Your task to perform on an android device: turn pop-ups on in chrome Image 0: 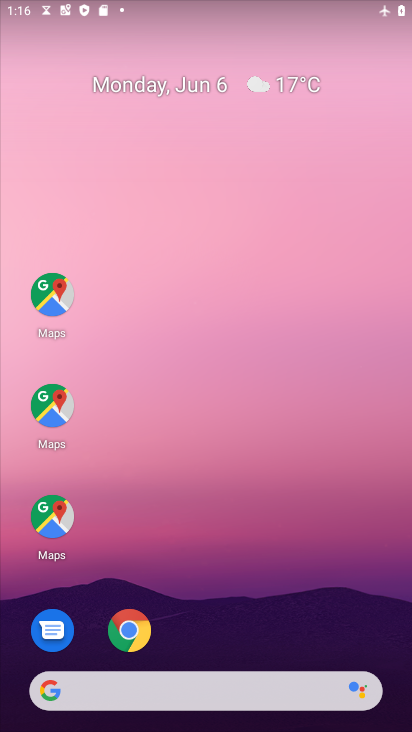
Step 0: drag from (263, 679) to (227, 103)
Your task to perform on an android device: turn pop-ups on in chrome Image 1: 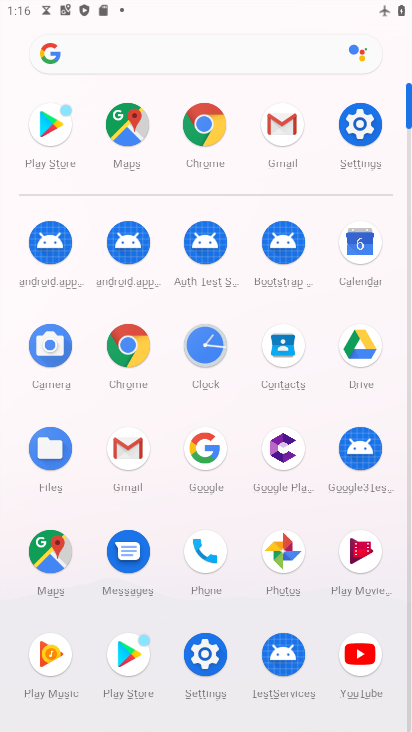
Step 1: click (195, 135)
Your task to perform on an android device: turn pop-ups on in chrome Image 2: 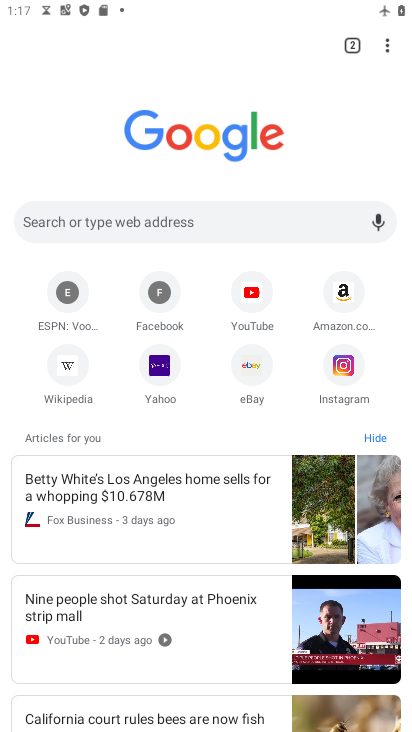
Step 2: drag from (391, 47) to (279, 351)
Your task to perform on an android device: turn pop-ups on in chrome Image 3: 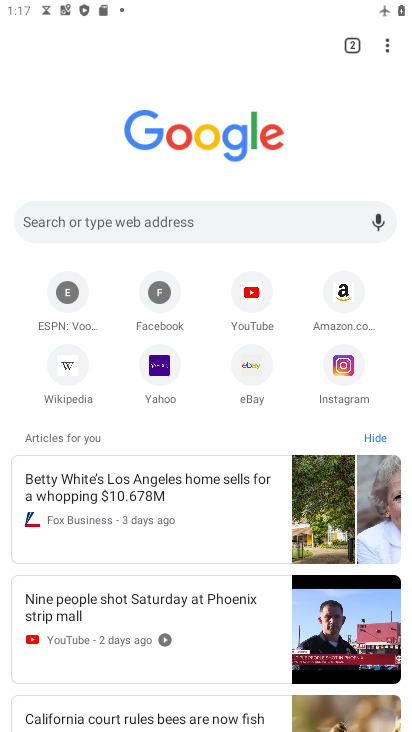
Step 3: drag from (392, 57) to (219, 379)
Your task to perform on an android device: turn pop-ups on in chrome Image 4: 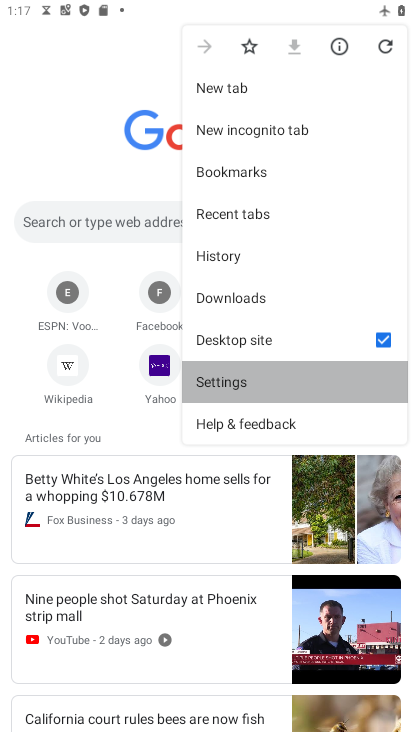
Step 4: click (223, 377)
Your task to perform on an android device: turn pop-ups on in chrome Image 5: 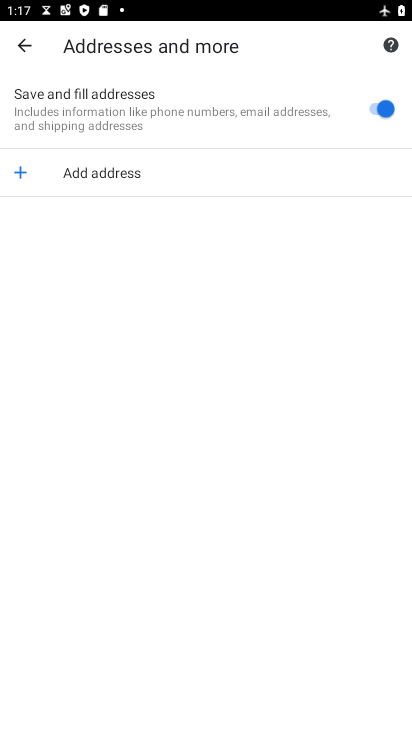
Step 5: click (14, 44)
Your task to perform on an android device: turn pop-ups on in chrome Image 6: 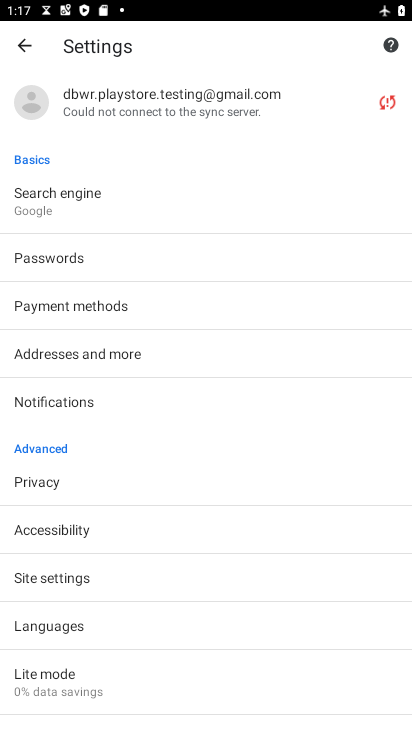
Step 6: click (35, 573)
Your task to perform on an android device: turn pop-ups on in chrome Image 7: 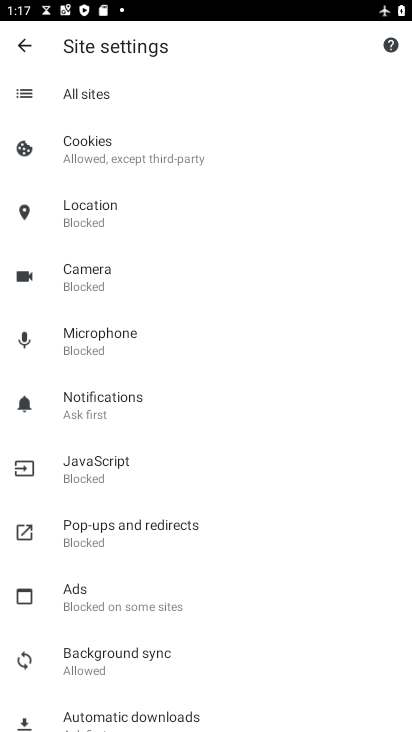
Step 7: click (74, 539)
Your task to perform on an android device: turn pop-ups on in chrome Image 8: 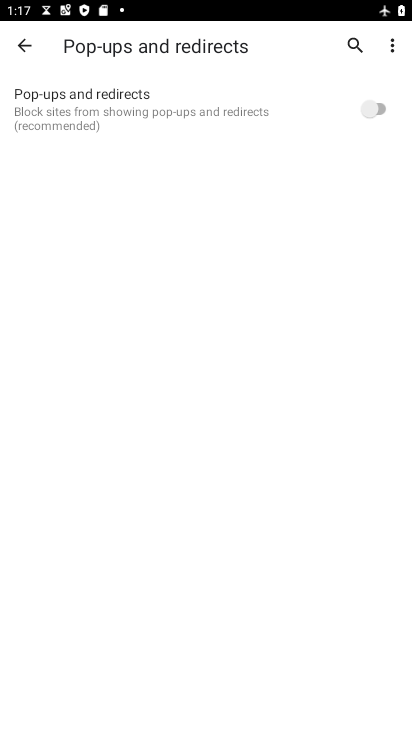
Step 8: click (380, 112)
Your task to perform on an android device: turn pop-ups on in chrome Image 9: 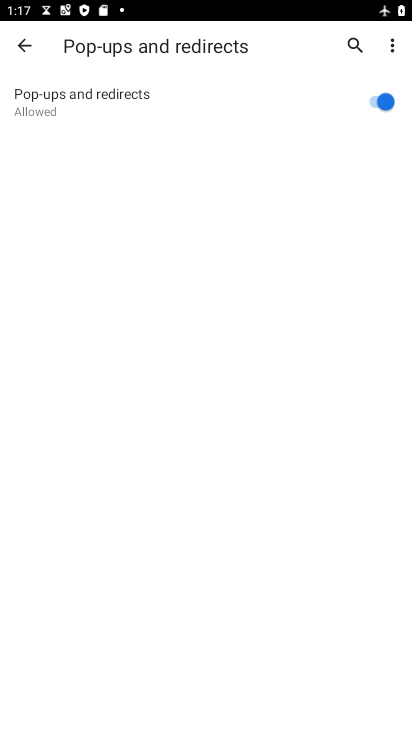
Step 9: task complete